Your task to perform on an android device: make emails show in primary in the gmail app Image 0: 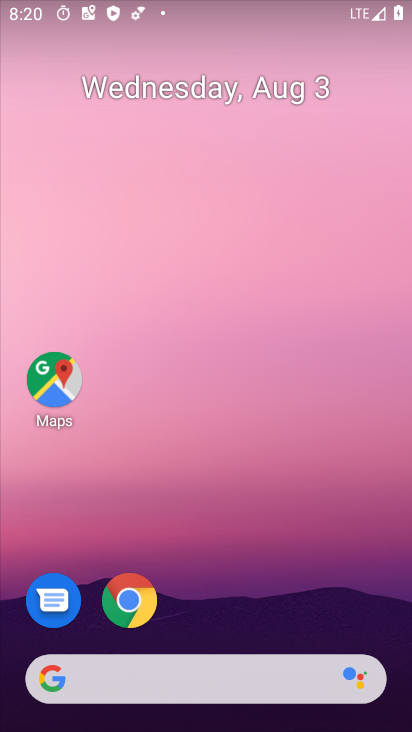
Step 0: drag from (221, 616) to (195, 33)
Your task to perform on an android device: make emails show in primary in the gmail app Image 1: 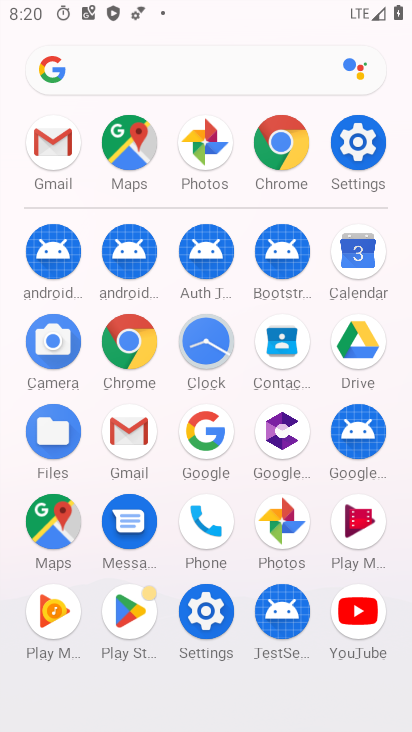
Step 1: click (140, 444)
Your task to perform on an android device: make emails show in primary in the gmail app Image 2: 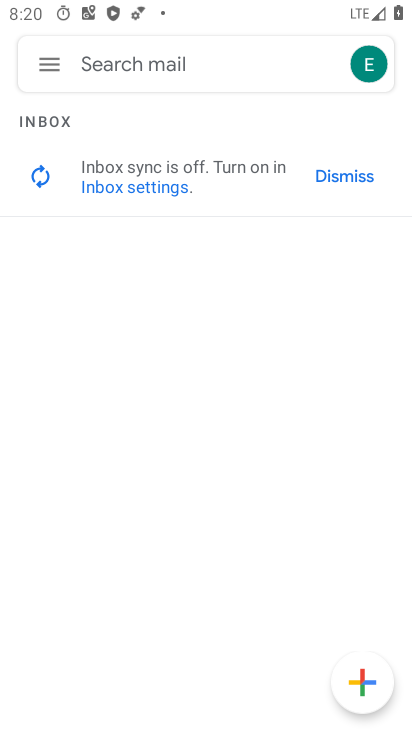
Step 2: click (39, 64)
Your task to perform on an android device: make emails show in primary in the gmail app Image 3: 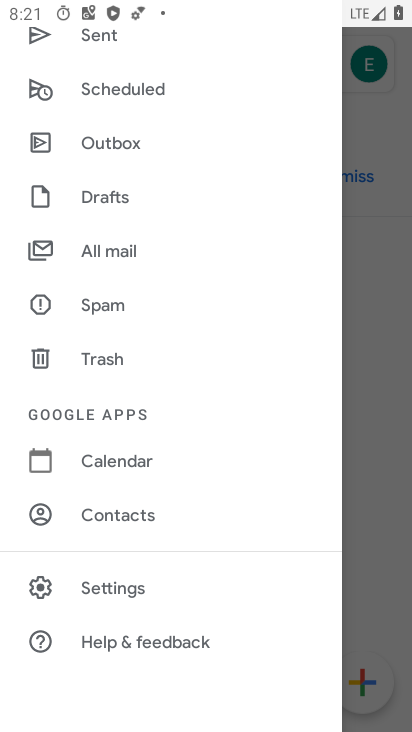
Step 3: click (125, 584)
Your task to perform on an android device: make emails show in primary in the gmail app Image 4: 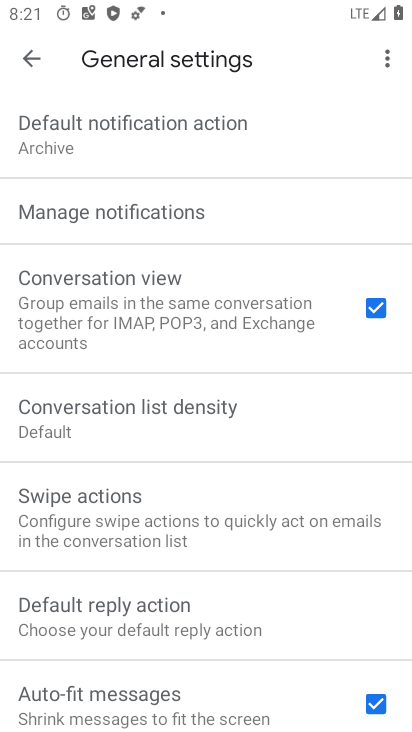
Step 4: click (19, 49)
Your task to perform on an android device: make emails show in primary in the gmail app Image 5: 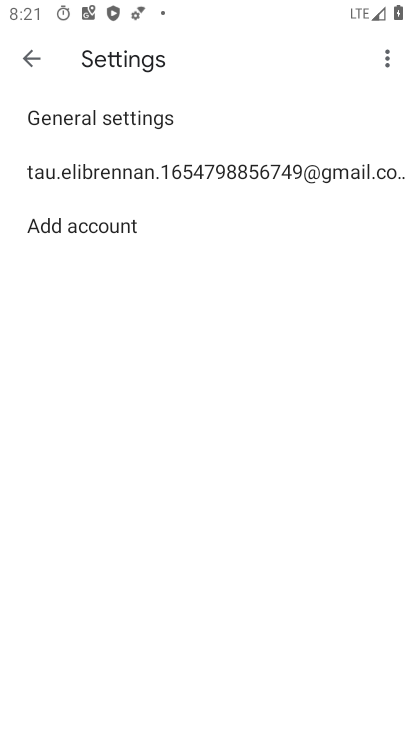
Step 5: click (168, 172)
Your task to perform on an android device: make emails show in primary in the gmail app Image 6: 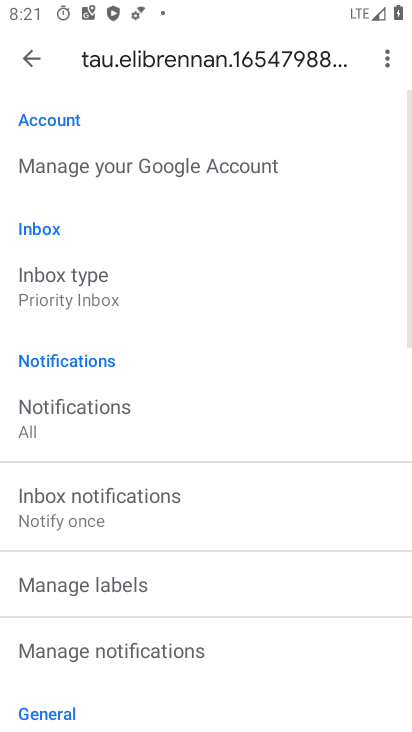
Step 6: click (82, 283)
Your task to perform on an android device: make emails show in primary in the gmail app Image 7: 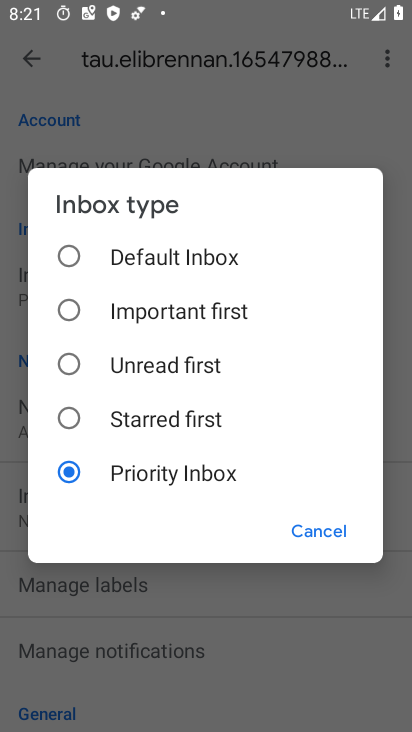
Step 7: click (78, 243)
Your task to perform on an android device: make emails show in primary in the gmail app Image 8: 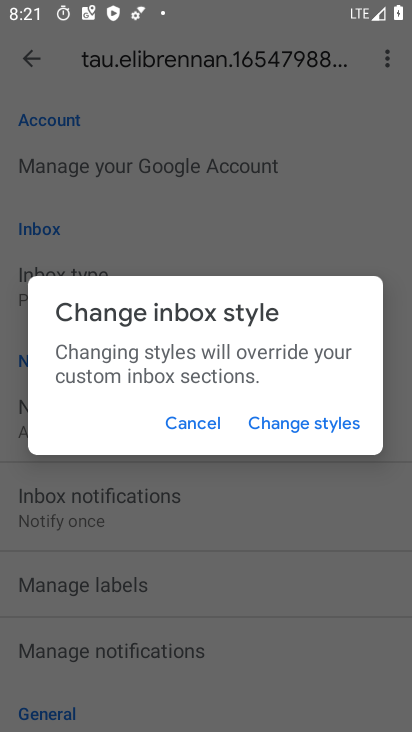
Step 8: click (298, 429)
Your task to perform on an android device: make emails show in primary in the gmail app Image 9: 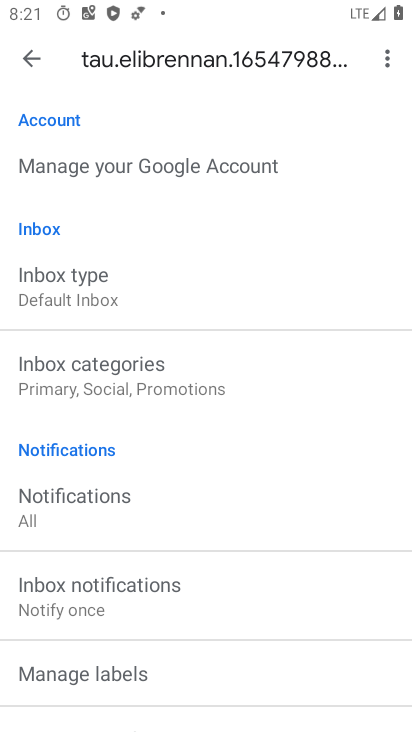
Step 9: click (130, 385)
Your task to perform on an android device: make emails show in primary in the gmail app Image 10: 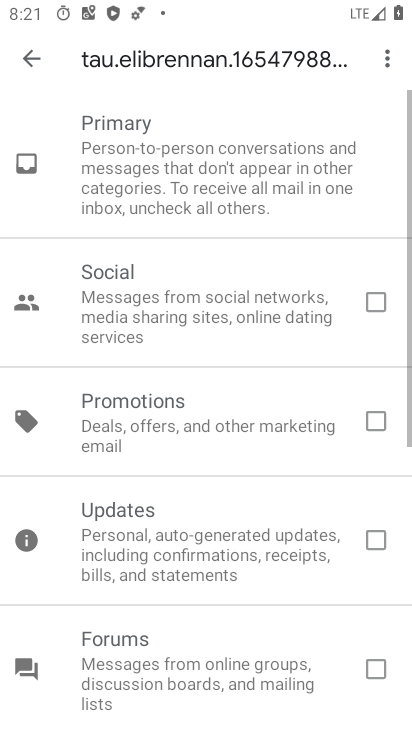
Step 10: click (130, 385)
Your task to perform on an android device: make emails show in primary in the gmail app Image 11: 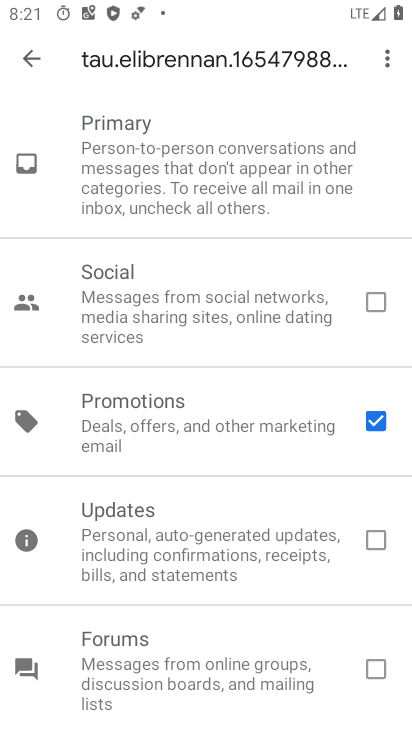
Step 11: click (384, 429)
Your task to perform on an android device: make emails show in primary in the gmail app Image 12: 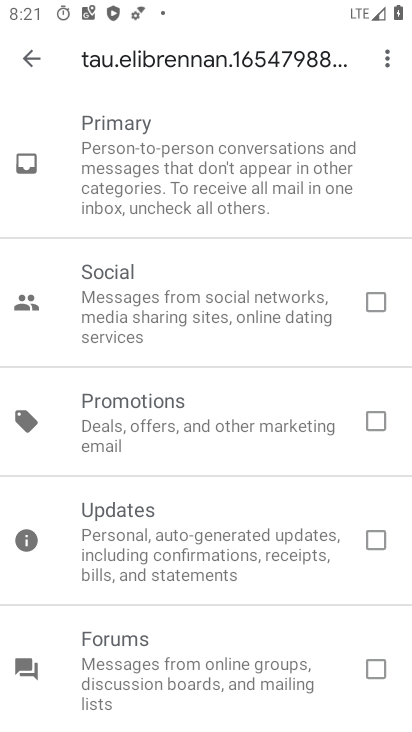
Step 12: task complete